Your task to perform on an android device: open the mobile data screen to see how much data has been used Image 0: 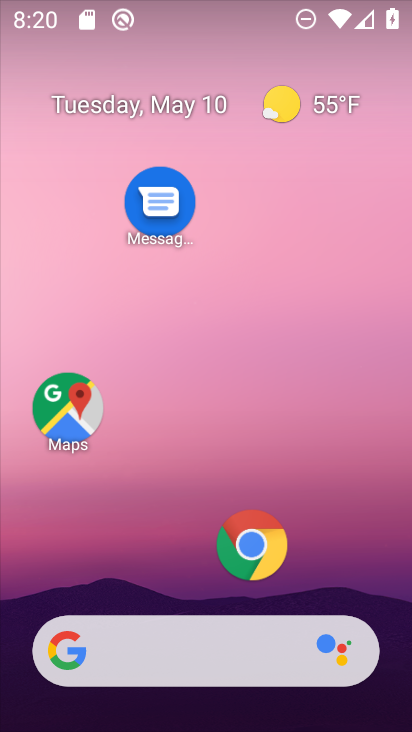
Step 0: drag from (193, 580) to (233, 160)
Your task to perform on an android device: open the mobile data screen to see how much data has been used Image 1: 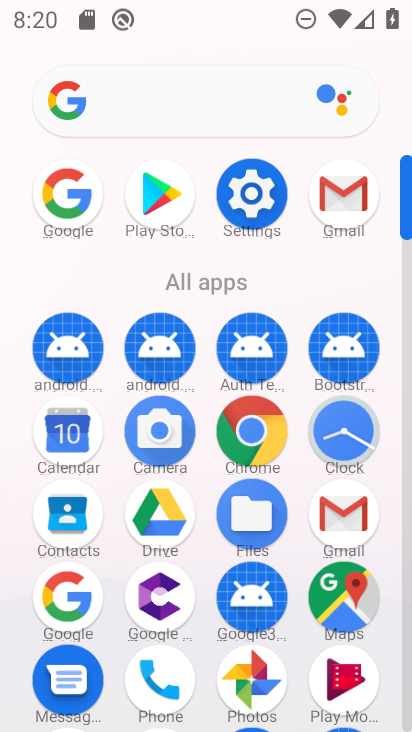
Step 1: click (250, 176)
Your task to perform on an android device: open the mobile data screen to see how much data has been used Image 2: 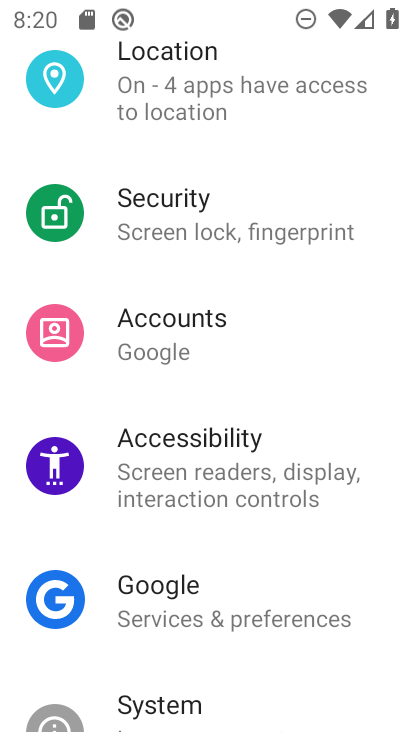
Step 2: drag from (246, 276) to (246, 539)
Your task to perform on an android device: open the mobile data screen to see how much data has been used Image 3: 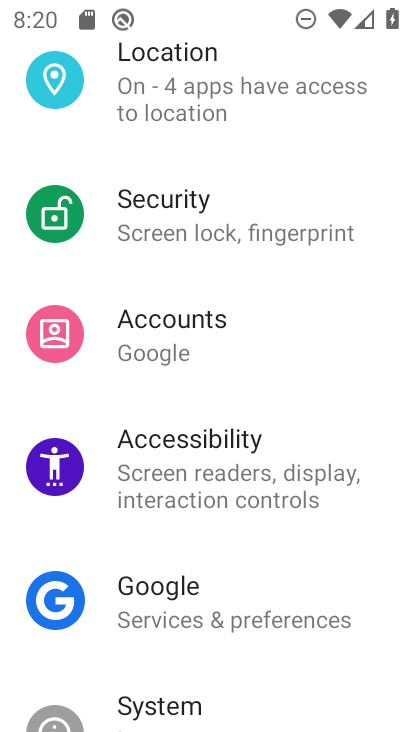
Step 3: drag from (241, 201) to (241, 579)
Your task to perform on an android device: open the mobile data screen to see how much data has been used Image 4: 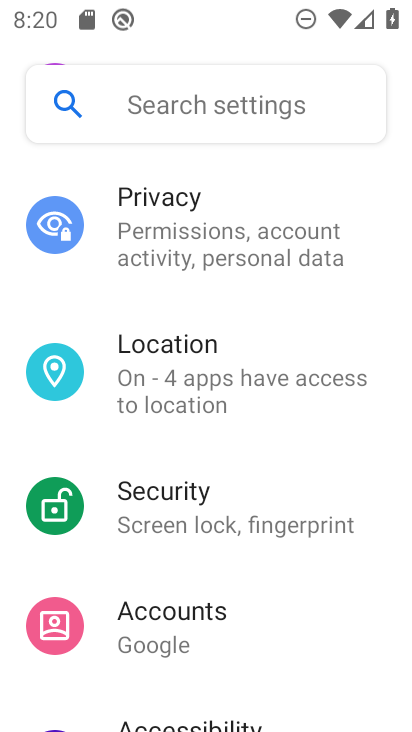
Step 4: drag from (187, 219) to (219, 536)
Your task to perform on an android device: open the mobile data screen to see how much data has been used Image 5: 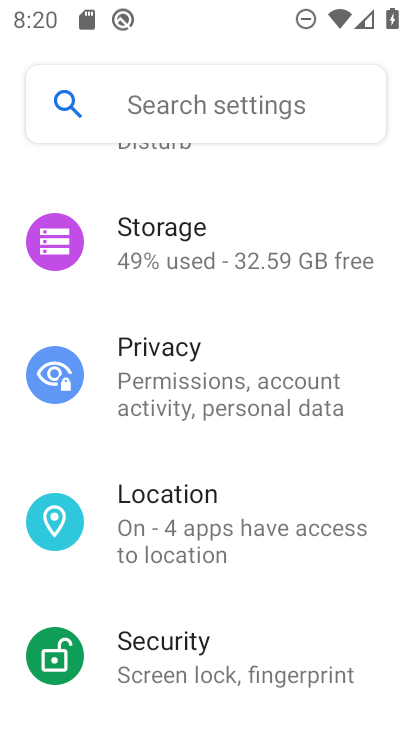
Step 5: drag from (178, 198) to (201, 549)
Your task to perform on an android device: open the mobile data screen to see how much data has been used Image 6: 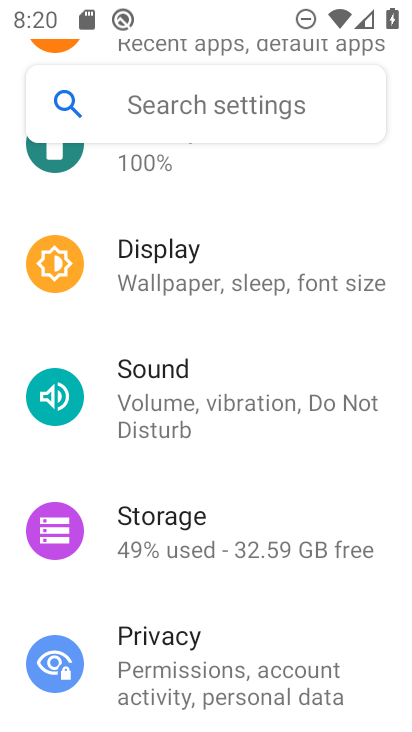
Step 6: drag from (211, 204) to (205, 600)
Your task to perform on an android device: open the mobile data screen to see how much data has been used Image 7: 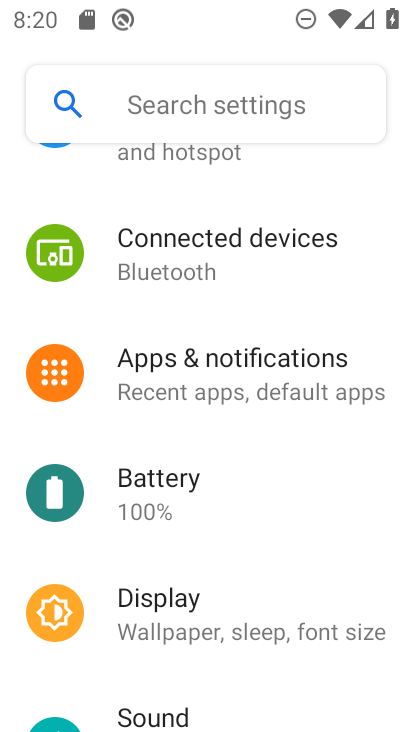
Step 7: drag from (188, 207) to (179, 611)
Your task to perform on an android device: open the mobile data screen to see how much data has been used Image 8: 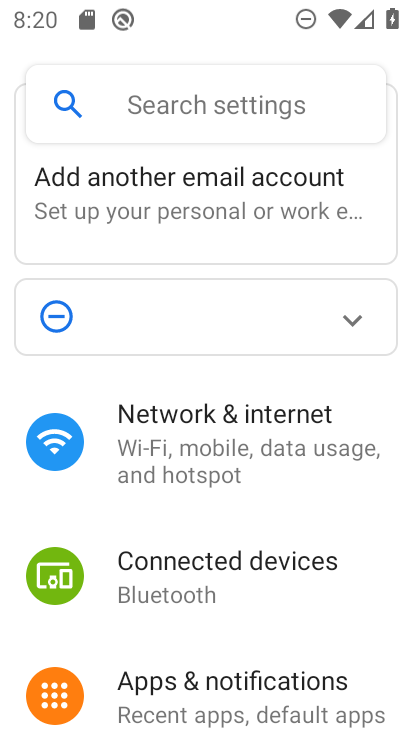
Step 8: click (191, 443)
Your task to perform on an android device: open the mobile data screen to see how much data has been used Image 9: 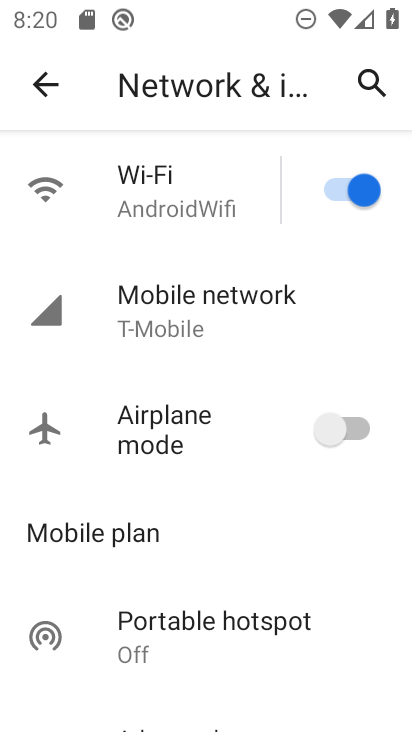
Step 9: click (155, 331)
Your task to perform on an android device: open the mobile data screen to see how much data has been used Image 10: 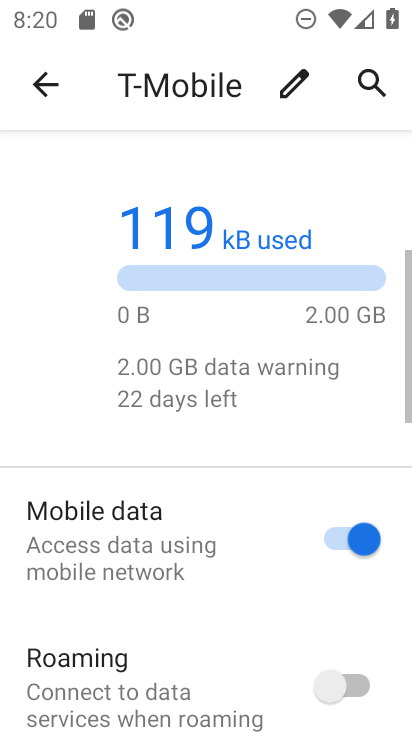
Step 10: drag from (194, 595) to (199, 266)
Your task to perform on an android device: open the mobile data screen to see how much data has been used Image 11: 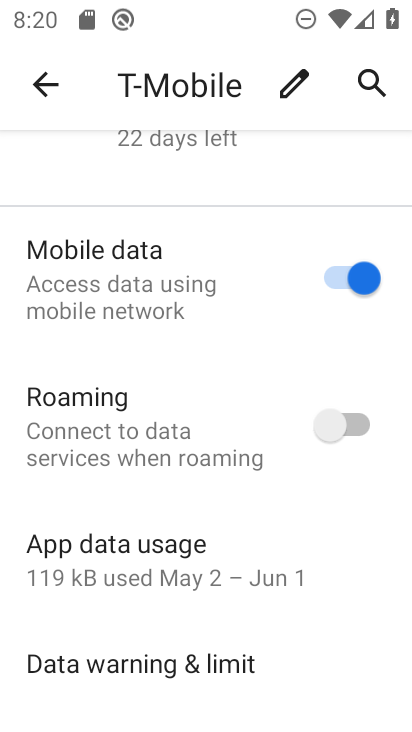
Step 11: click (122, 555)
Your task to perform on an android device: open the mobile data screen to see how much data has been used Image 12: 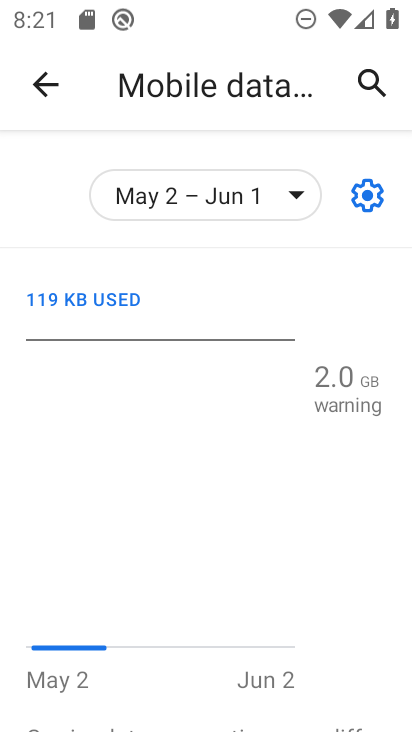
Step 12: task complete